Your task to perform on an android device: turn notification dots off Image 0: 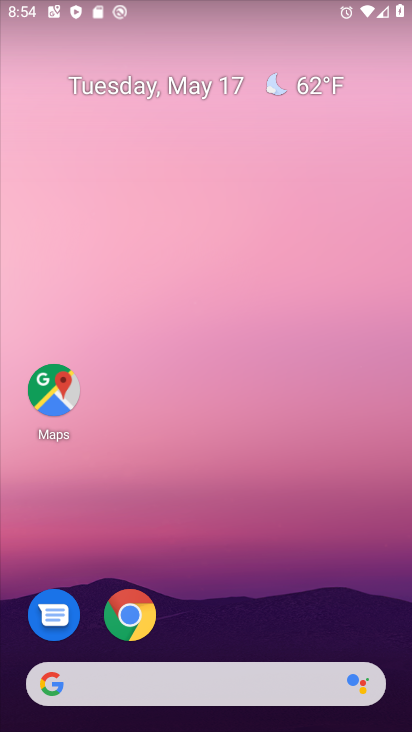
Step 0: drag from (294, 618) to (257, 153)
Your task to perform on an android device: turn notification dots off Image 1: 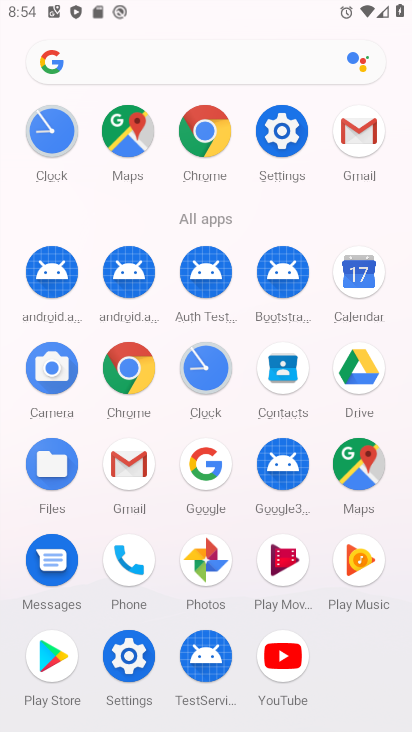
Step 1: click (137, 658)
Your task to perform on an android device: turn notification dots off Image 2: 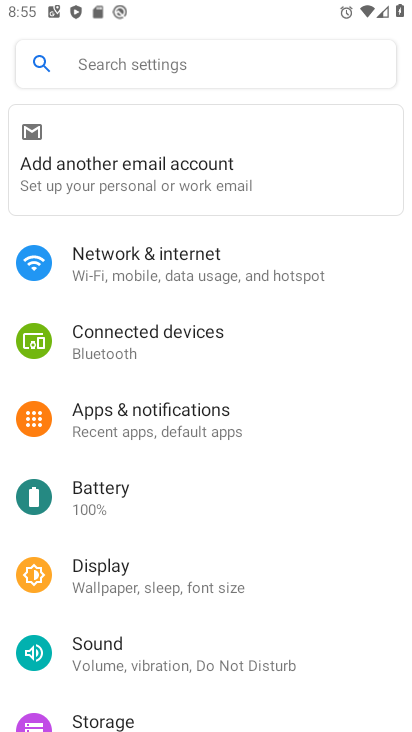
Step 2: click (175, 417)
Your task to perform on an android device: turn notification dots off Image 3: 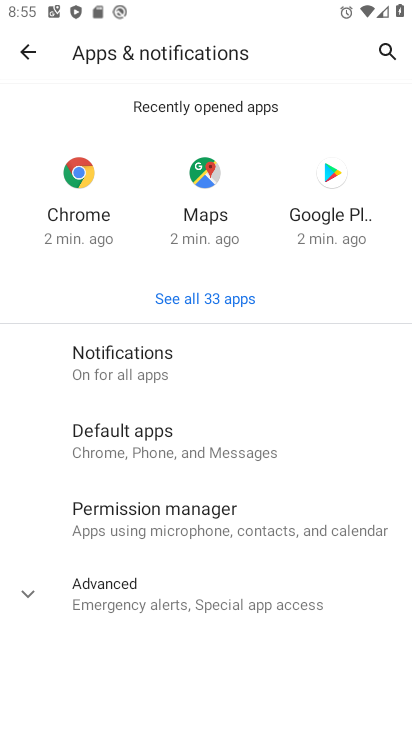
Step 3: click (168, 342)
Your task to perform on an android device: turn notification dots off Image 4: 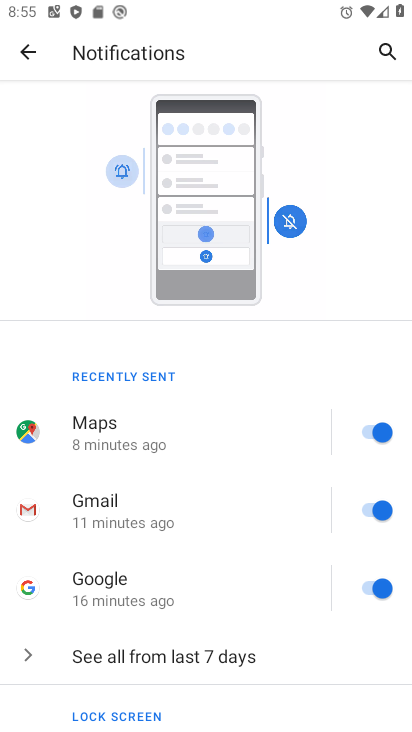
Step 4: drag from (303, 690) to (274, 230)
Your task to perform on an android device: turn notification dots off Image 5: 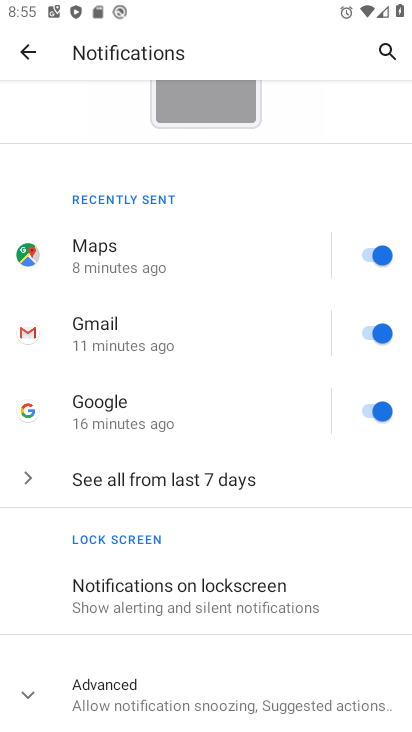
Step 5: click (175, 670)
Your task to perform on an android device: turn notification dots off Image 6: 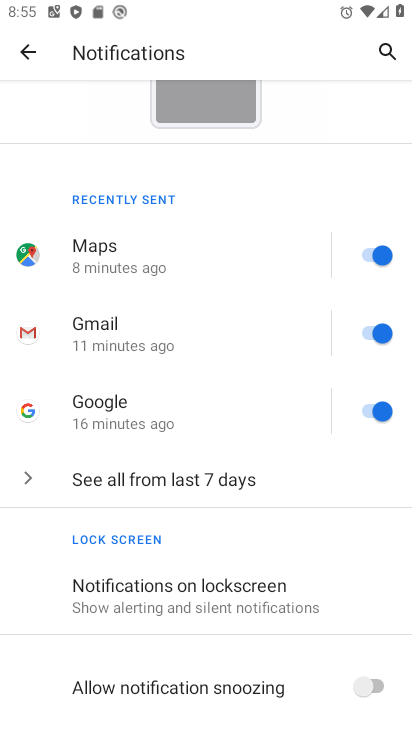
Step 6: task complete